Your task to perform on an android device: Open Google Chrome and click the shortcut for Amazon.com Image 0: 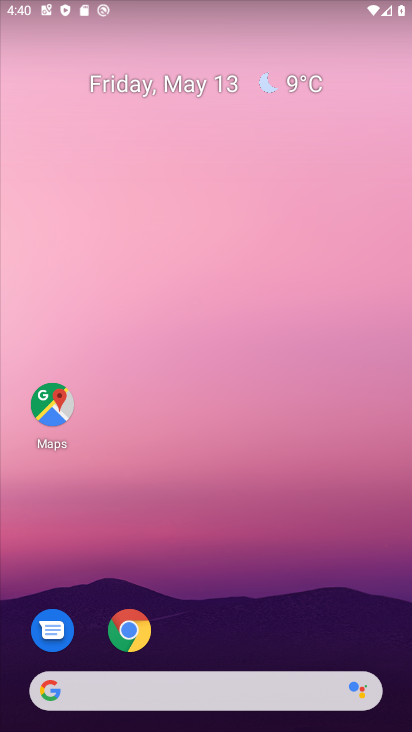
Step 0: drag from (234, 421) to (223, 29)
Your task to perform on an android device: Open Google Chrome and click the shortcut for Amazon.com Image 1: 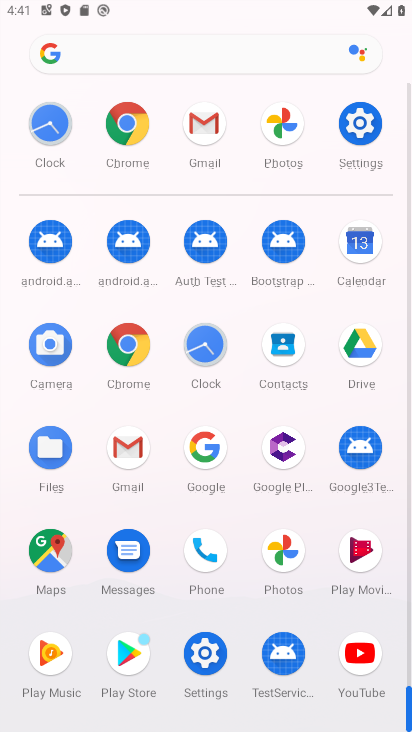
Step 1: drag from (19, 515) to (21, 195)
Your task to perform on an android device: Open Google Chrome and click the shortcut for Amazon.com Image 2: 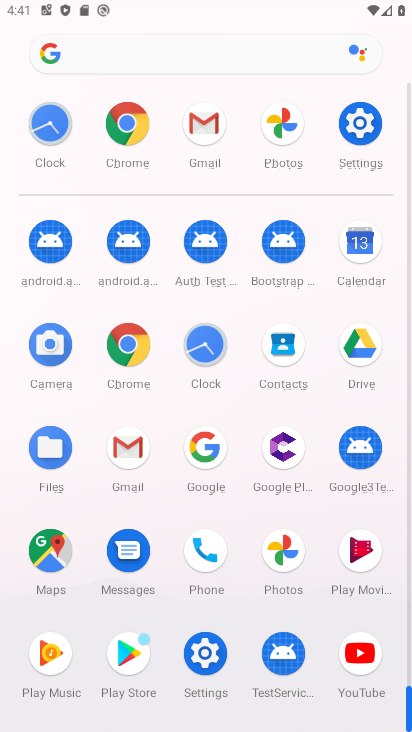
Step 2: click (127, 341)
Your task to perform on an android device: Open Google Chrome and click the shortcut for Amazon.com Image 3: 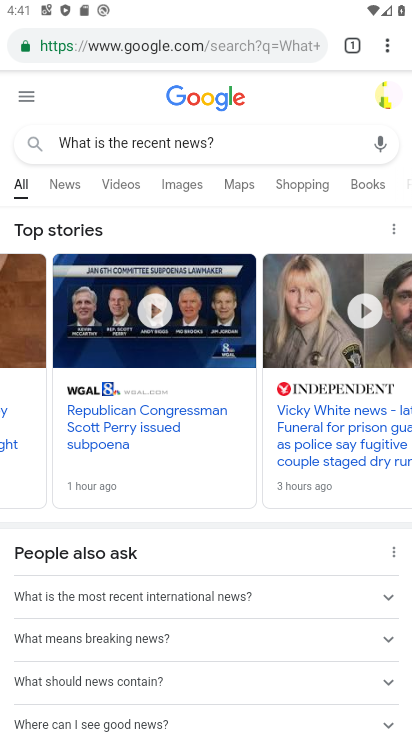
Step 3: click (147, 42)
Your task to perform on an android device: Open Google Chrome and click the shortcut for Amazon.com Image 4: 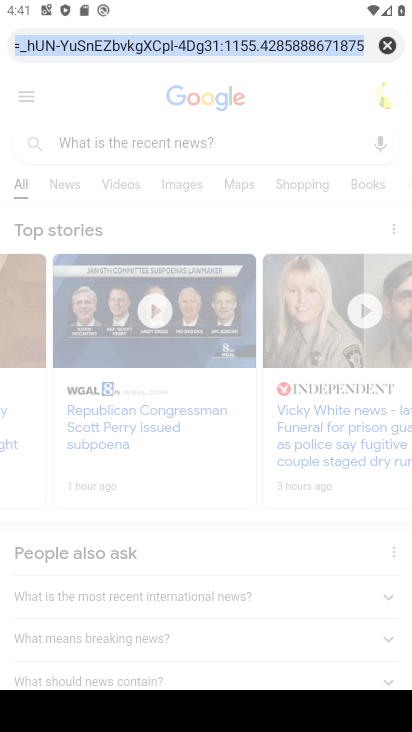
Step 4: click (388, 45)
Your task to perform on an android device: Open Google Chrome and click the shortcut for Amazon.com Image 5: 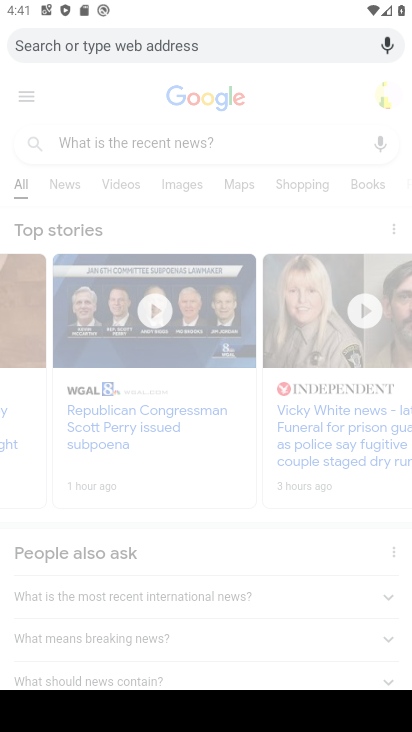
Step 5: type "Amazon.com"
Your task to perform on an android device: Open Google Chrome and click the shortcut for Amazon.com Image 6: 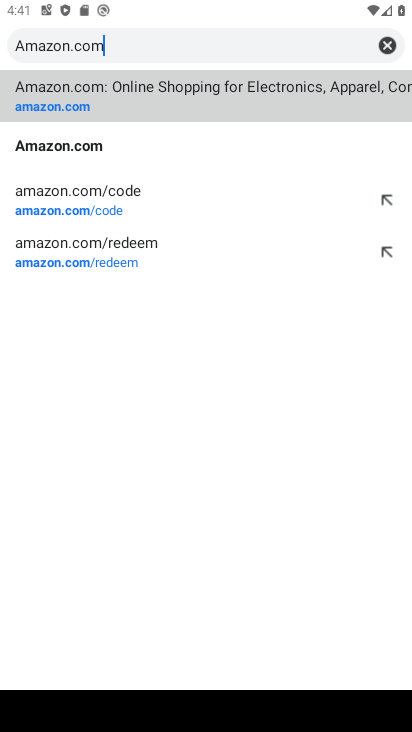
Step 6: type ""
Your task to perform on an android device: Open Google Chrome and click the shortcut for Amazon.com Image 7: 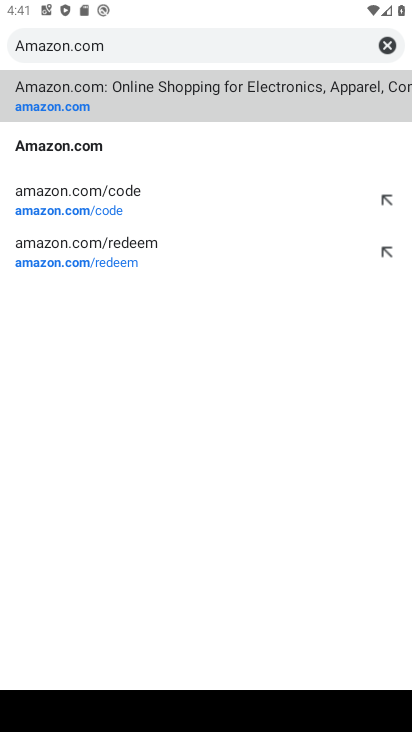
Step 7: click (143, 96)
Your task to perform on an android device: Open Google Chrome and click the shortcut for Amazon.com Image 8: 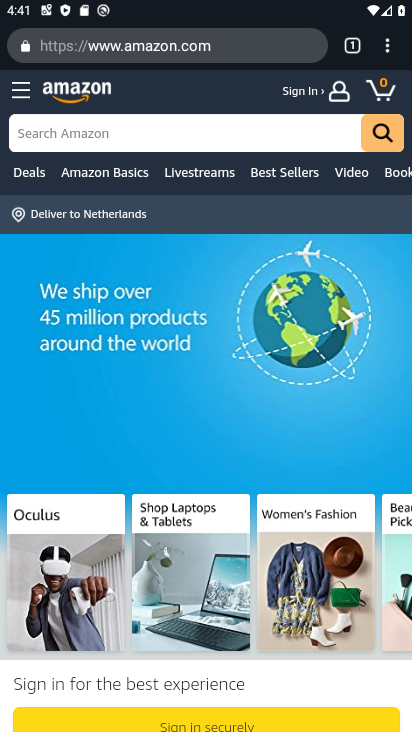
Step 8: drag from (387, 44) to (268, 464)
Your task to perform on an android device: Open Google Chrome and click the shortcut for Amazon.com Image 9: 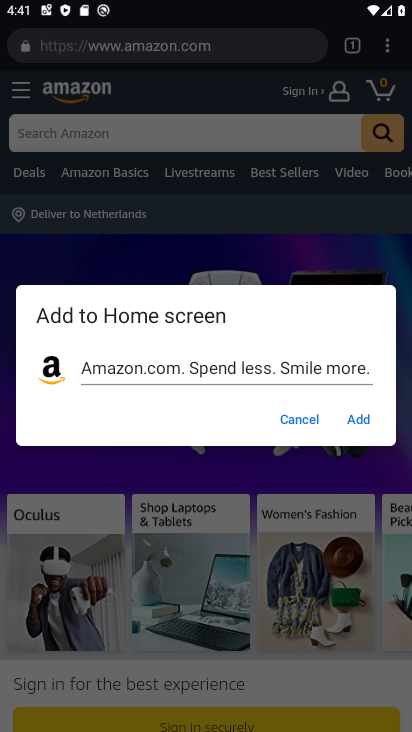
Step 9: click (363, 417)
Your task to perform on an android device: Open Google Chrome and click the shortcut for Amazon.com Image 10: 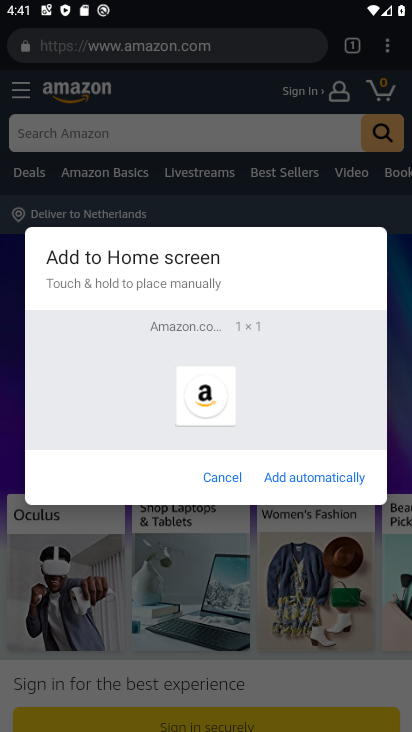
Step 10: click (337, 481)
Your task to perform on an android device: Open Google Chrome and click the shortcut for Amazon.com Image 11: 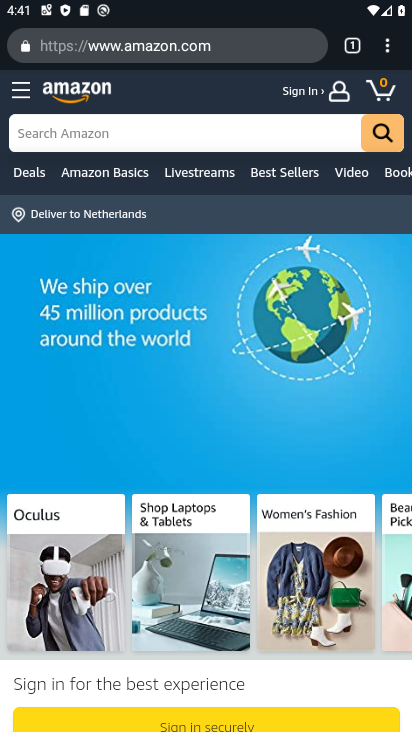
Step 11: task complete